Your task to perform on an android device: When is my next meeting? Image 0: 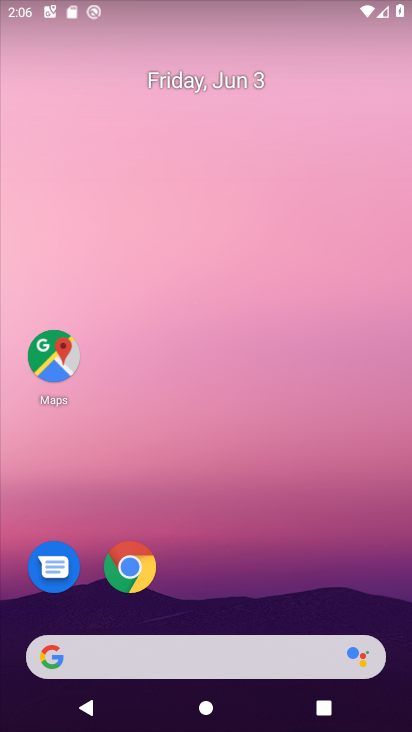
Step 0: click (203, 225)
Your task to perform on an android device: When is my next meeting? Image 1: 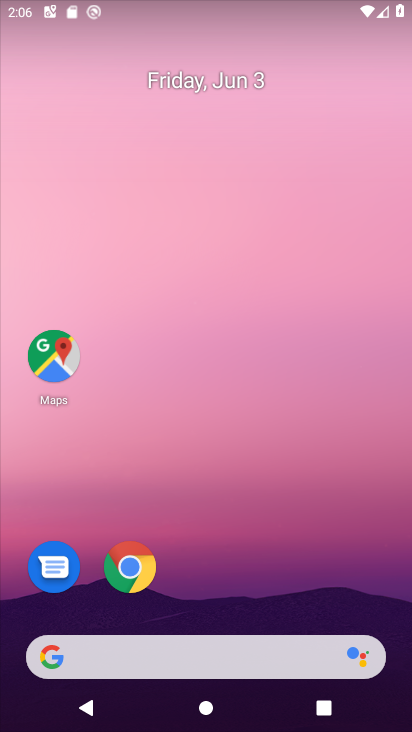
Step 1: drag from (185, 477) to (185, 238)
Your task to perform on an android device: When is my next meeting? Image 2: 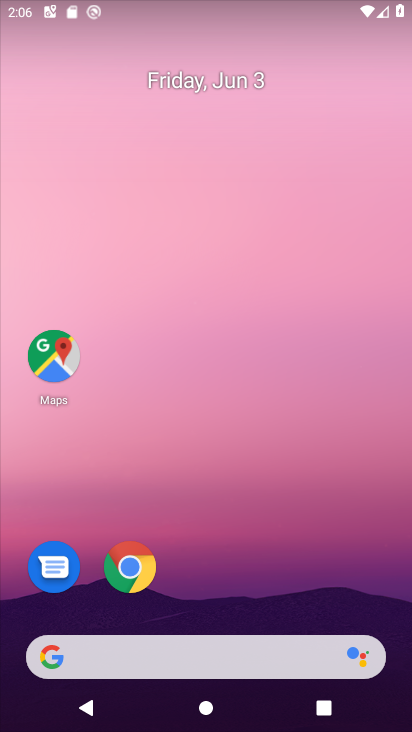
Step 2: drag from (198, 583) to (168, 207)
Your task to perform on an android device: When is my next meeting? Image 3: 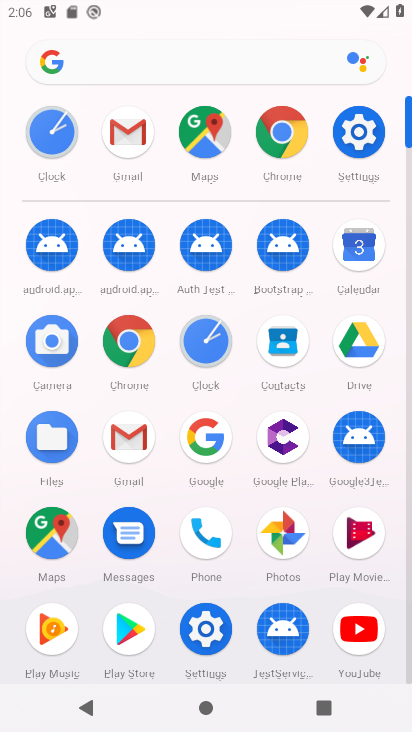
Step 3: click (358, 244)
Your task to perform on an android device: When is my next meeting? Image 4: 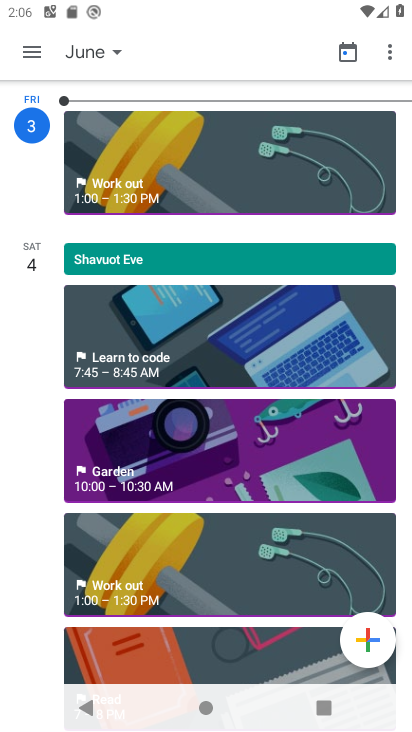
Step 4: click (23, 41)
Your task to perform on an android device: When is my next meeting? Image 5: 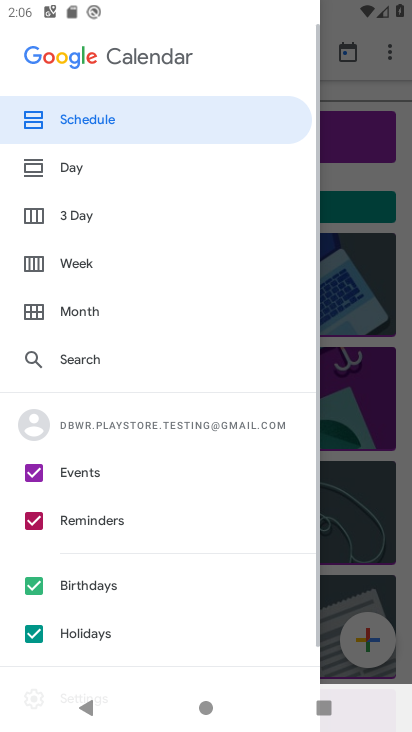
Step 5: click (85, 257)
Your task to perform on an android device: When is my next meeting? Image 6: 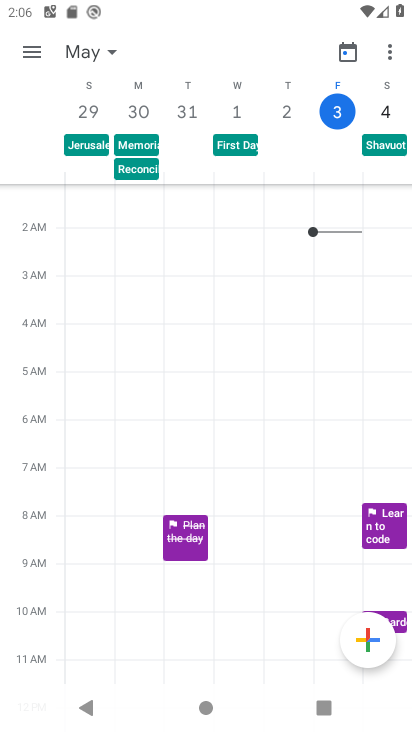
Step 6: click (398, 118)
Your task to perform on an android device: When is my next meeting? Image 7: 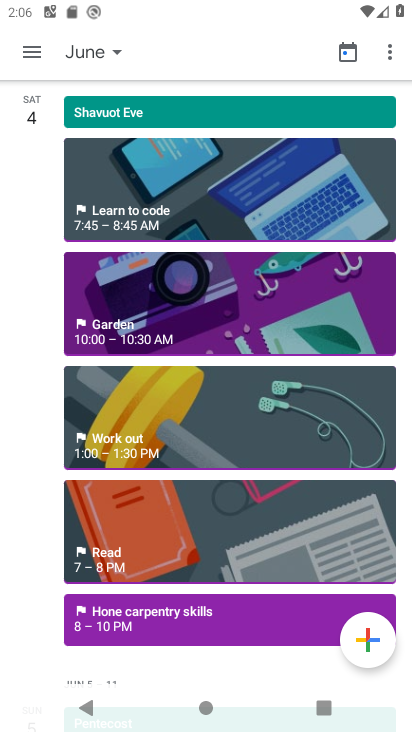
Step 7: task complete